Your task to perform on an android device: Search for Mexican restaurants on Maps Image 0: 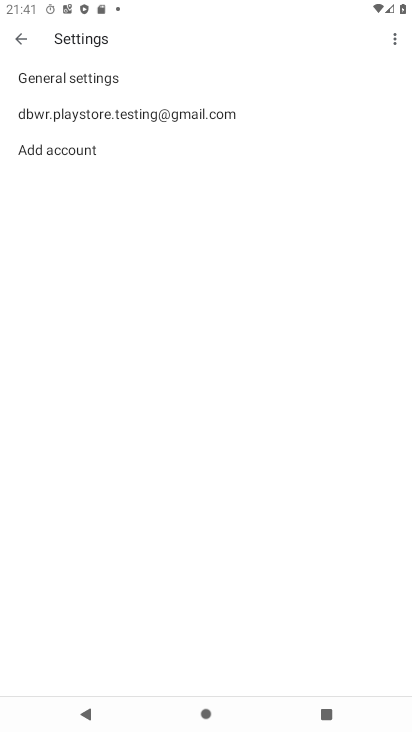
Step 0: drag from (322, 651) to (286, 168)
Your task to perform on an android device: Search for Mexican restaurants on Maps Image 1: 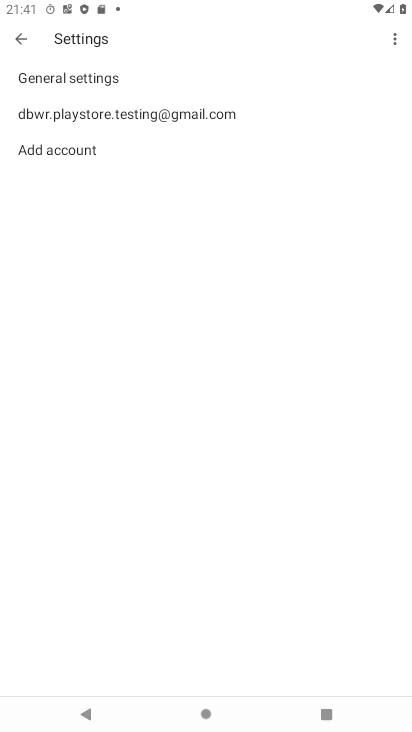
Step 1: press home button
Your task to perform on an android device: Search for Mexican restaurants on Maps Image 2: 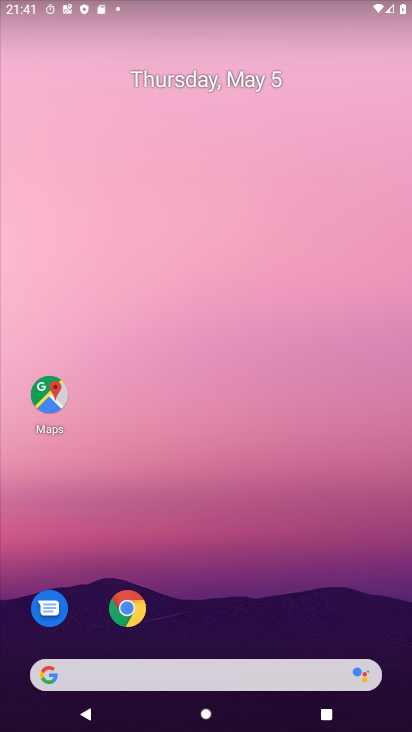
Step 2: drag from (237, 647) to (233, 1)
Your task to perform on an android device: Search for Mexican restaurants on Maps Image 3: 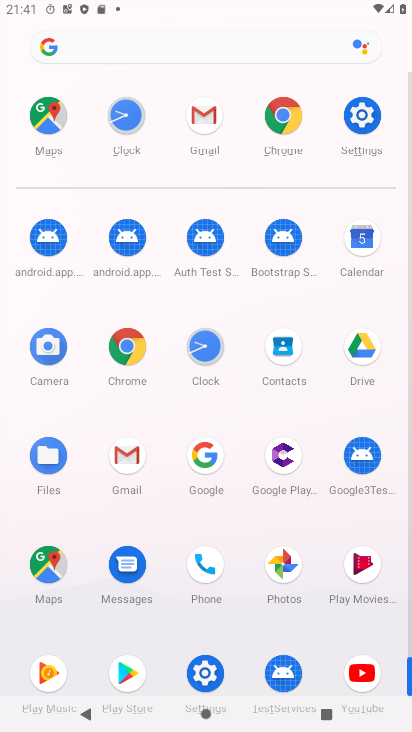
Step 3: click (52, 568)
Your task to perform on an android device: Search for Mexican restaurants on Maps Image 4: 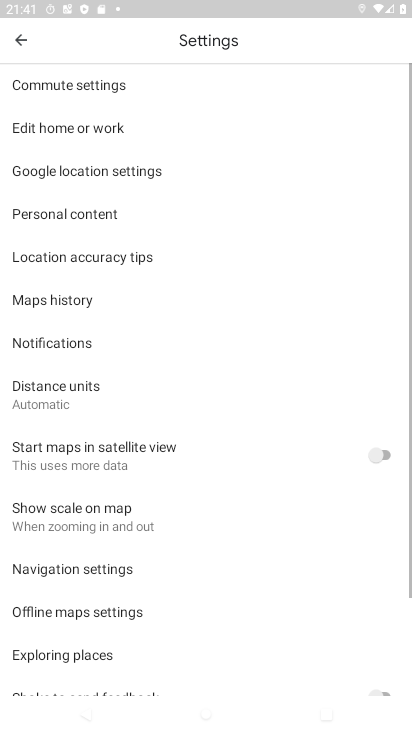
Step 4: press back button
Your task to perform on an android device: Search for Mexican restaurants on Maps Image 5: 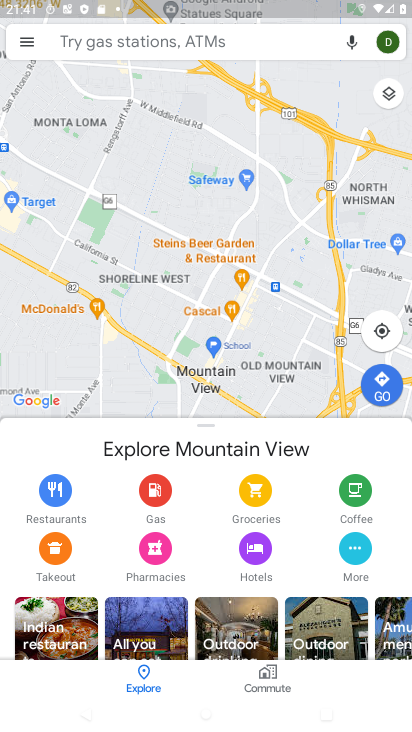
Step 5: click (304, 41)
Your task to perform on an android device: Search for Mexican restaurants on Maps Image 6: 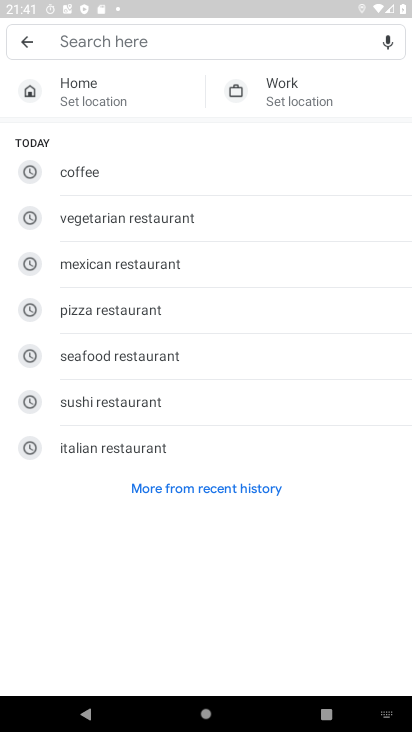
Step 6: type "mexican restaurant"
Your task to perform on an android device: Search for Mexican restaurants on Maps Image 7: 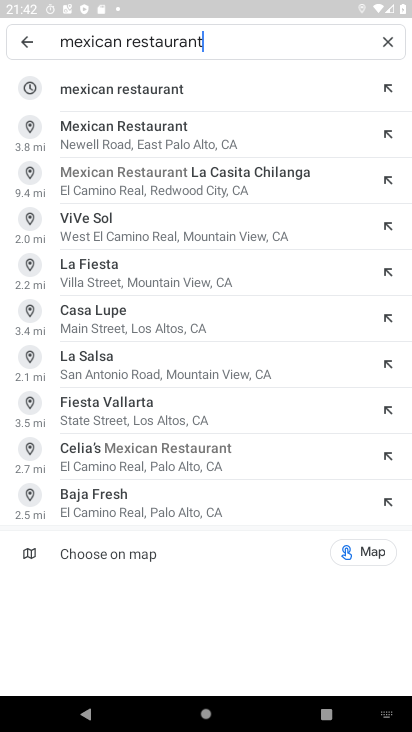
Step 7: click (173, 85)
Your task to perform on an android device: Search for Mexican restaurants on Maps Image 8: 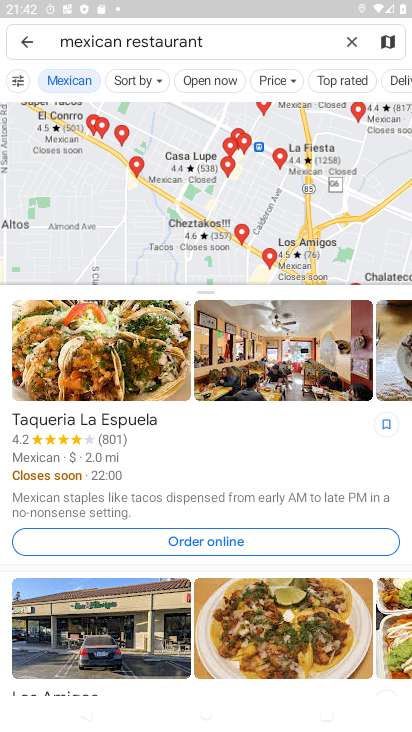
Step 8: task complete